Your task to perform on an android device: open device folders in google photos Image 0: 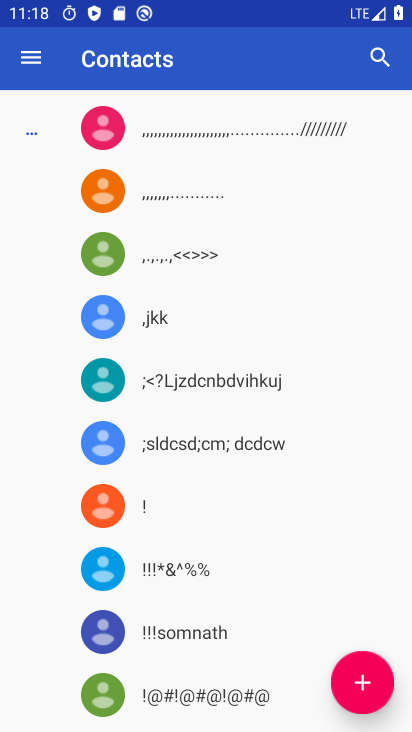
Step 0: press home button
Your task to perform on an android device: open device folders in google photos Image 1: 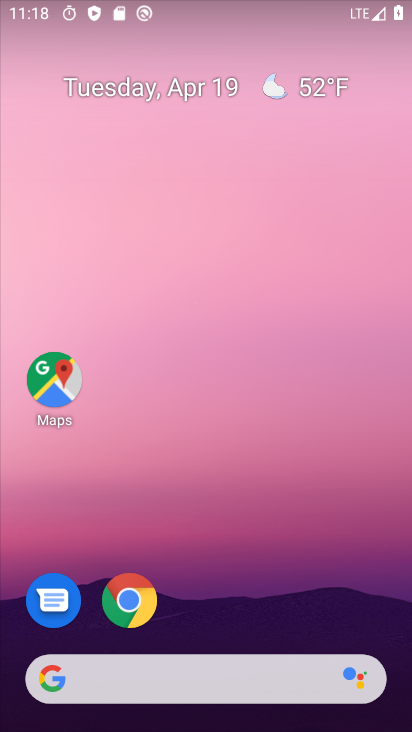
Step 1: drag from (222, 645) to (220, 81)
Your task to perform on an android device: open device folders in google photos Image 2: 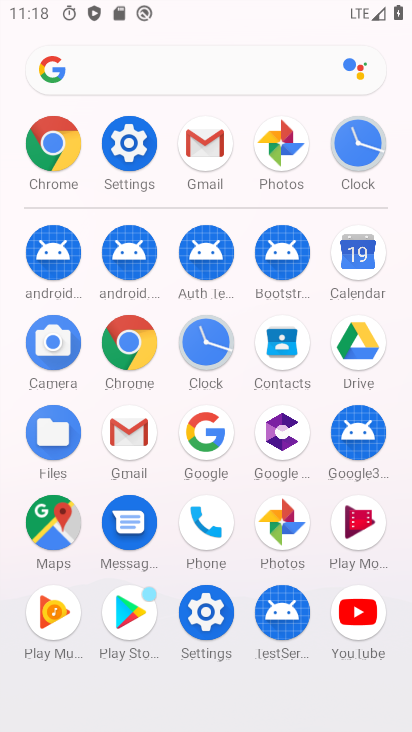
Step 2: click (288, 515)
Your task to perform on an android device: open device folders in google photos Image 3: 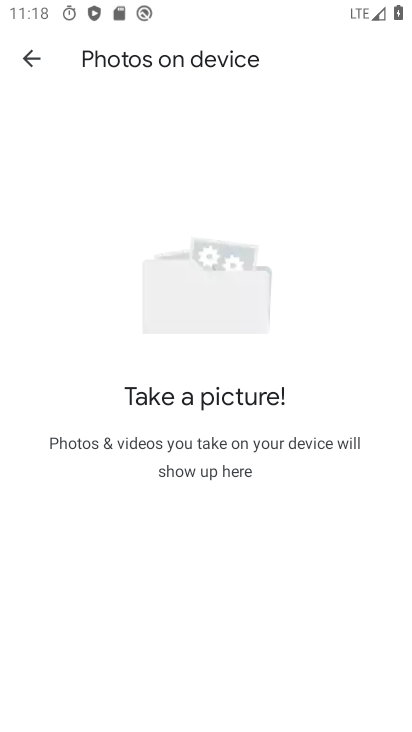
Step 3: click (30, 60)
Your task to perform on an android device: open device folders in google photos Image 4: 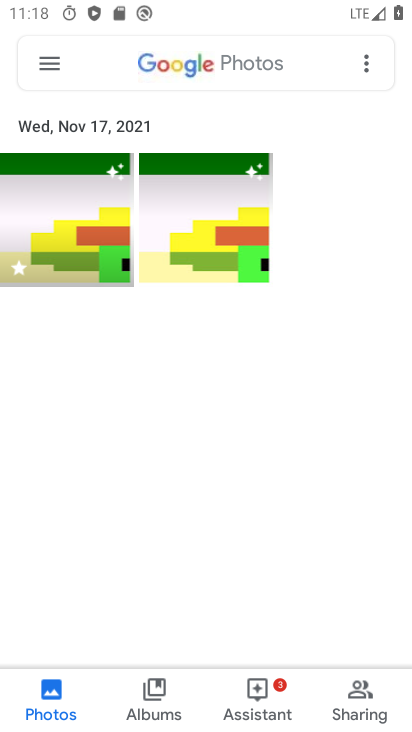
Step 4: click (30, 60)
Your task to perform on an android device: open device folders in google photos Image 5: 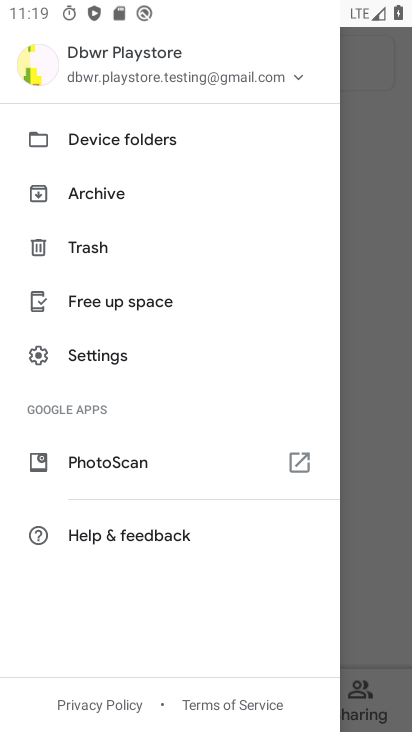
Step 5: click (83, 130)
Your task to perform on an android device: open device folders in google photos Image 6: 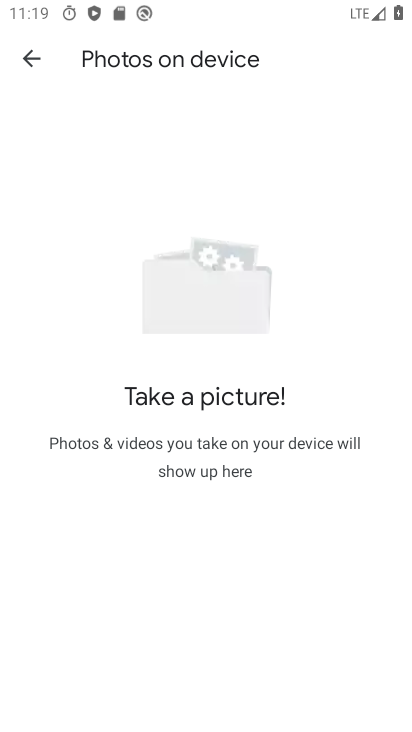
Step 6: task complete